Your task to perform on an android device: add a contact Image 0: 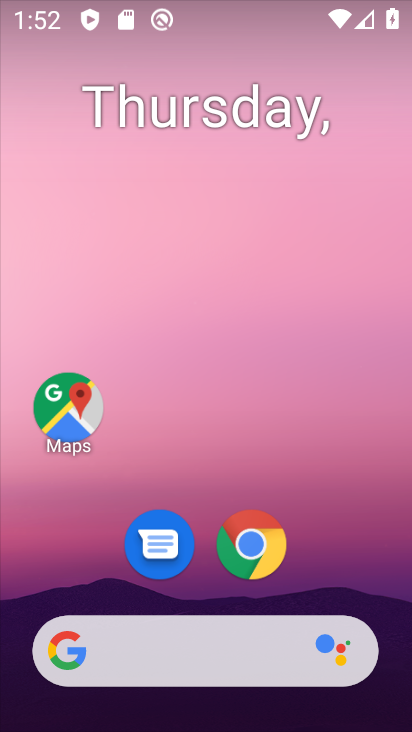
Step 0: drag from (318, 570) to (237, 142)
Your task to perform on an android device: add a contact Image 1: 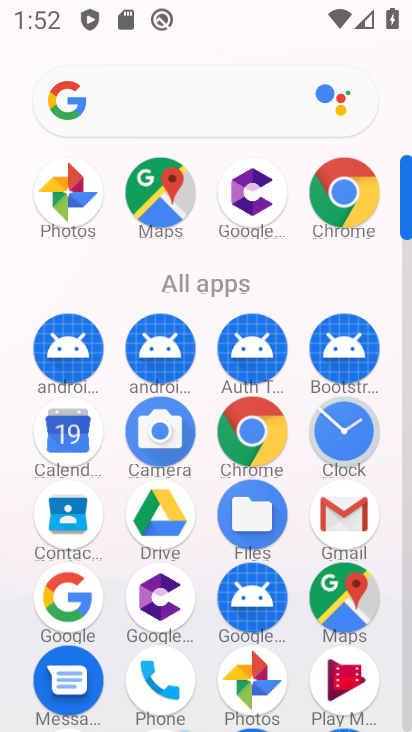
Step 1: click (83, 527)
Your task to perform on an android device: add a contact Image 2: 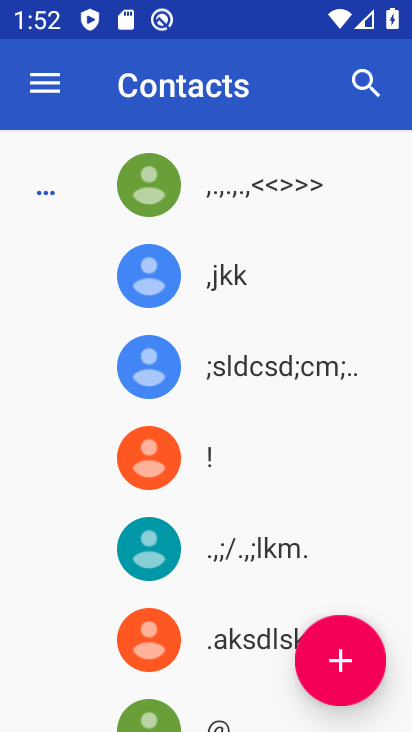
Step 2: click (342, 678)
Your task to perform on an android device: add a contact Image 3: 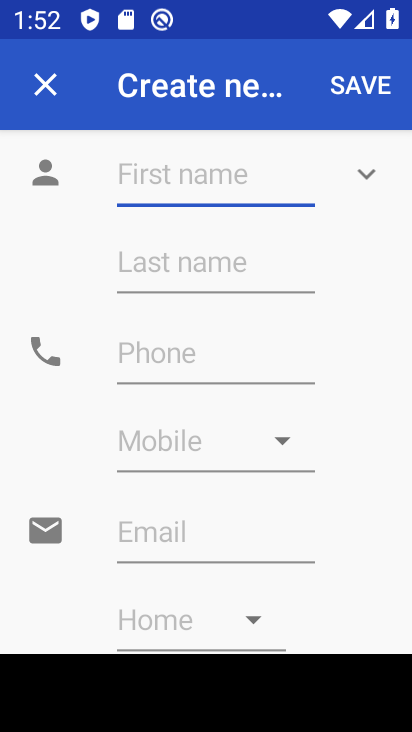
Step 3: click (167, 179)
Your task to perform on an android device: add a contact Image 4: 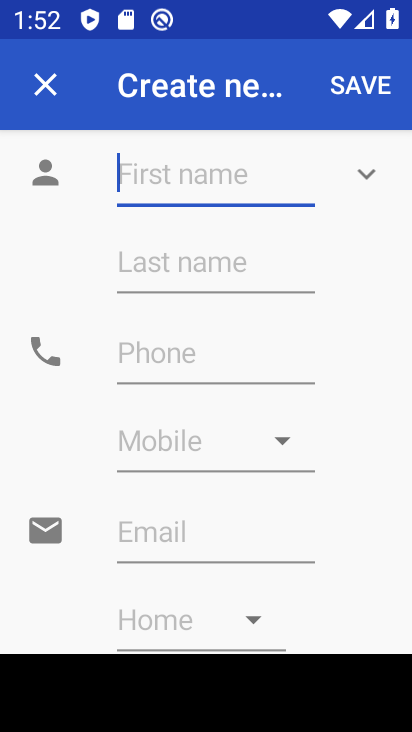
Step 4: click (167, 179)
Your task to perform on an android device: add a contact Image 5: 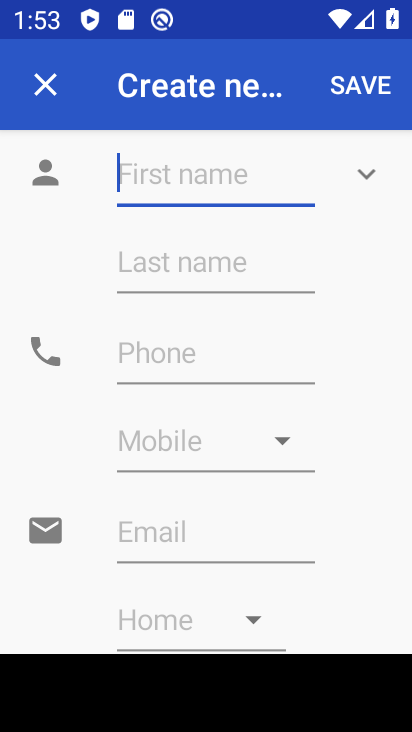
Step 5: type "jio fiber"
Your task to perform on an android device: add a contact Image 6: 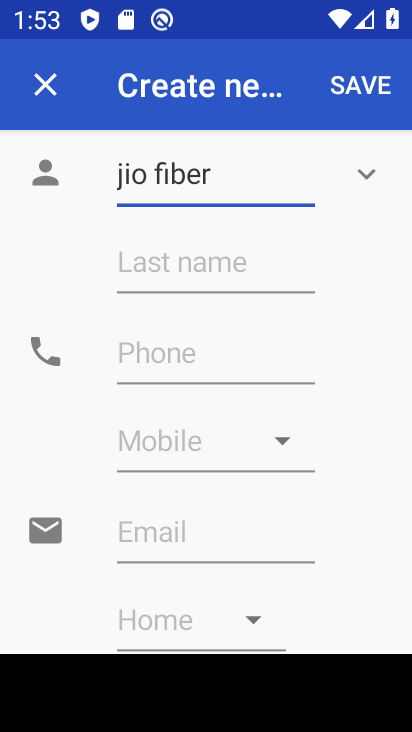
Step 6: click (158, 364)
Your task to perform on an android device: add a contact Image 7: 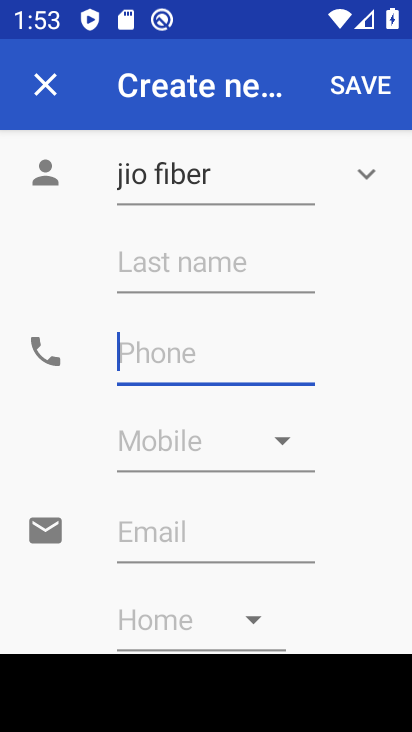
Step 7: type "554777788"
Your task to perform on an android device: add a contact Image 8: 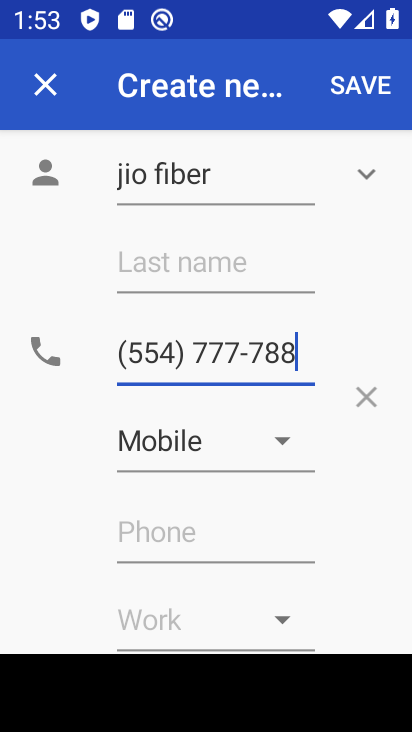
Step 8: type "8"
Your task to perform on an android device: add a contact Image 9: 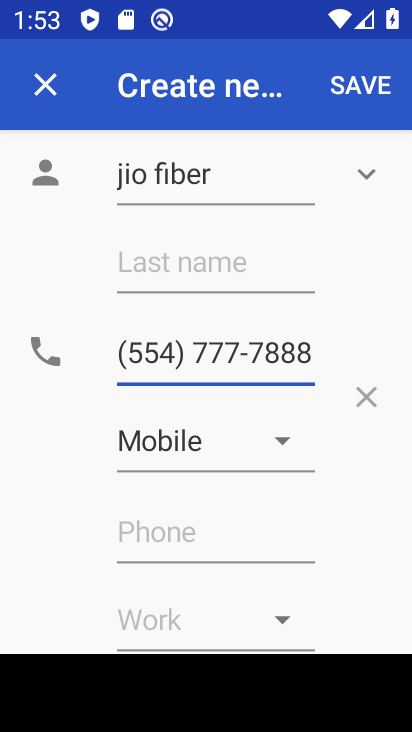
Step 9: click (362, 98)
Your task to perform on an android device: add a contact Image 10: 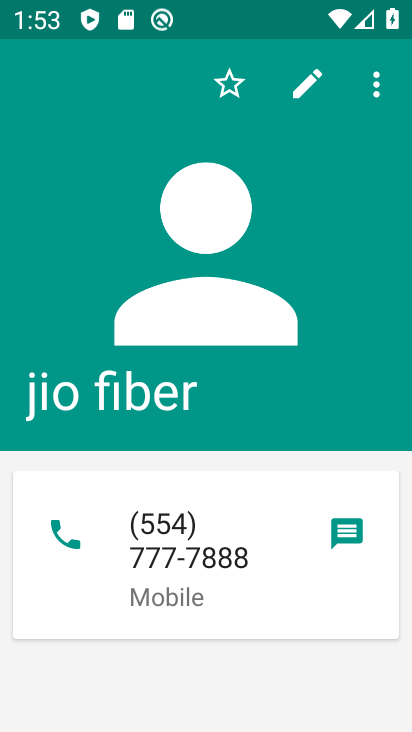
Step 10: task complete